Your task to perform on an android device: move a message to another label in the gmail app Image 0: 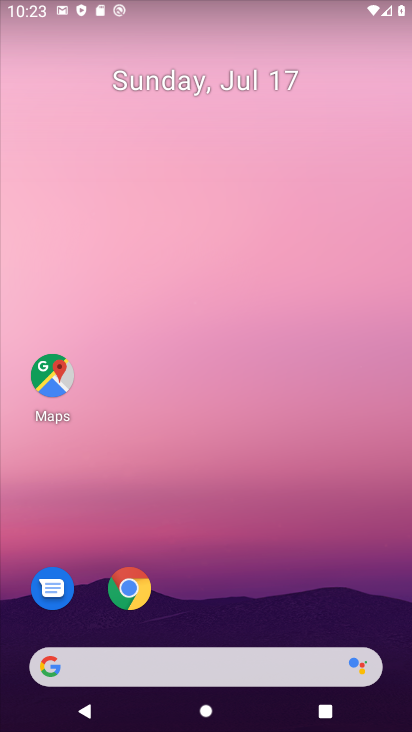
Step 0: drag from (254, 569) to (361, 1)
Your task to perform on an android device: move a message to another label in the gmail app Image 1: 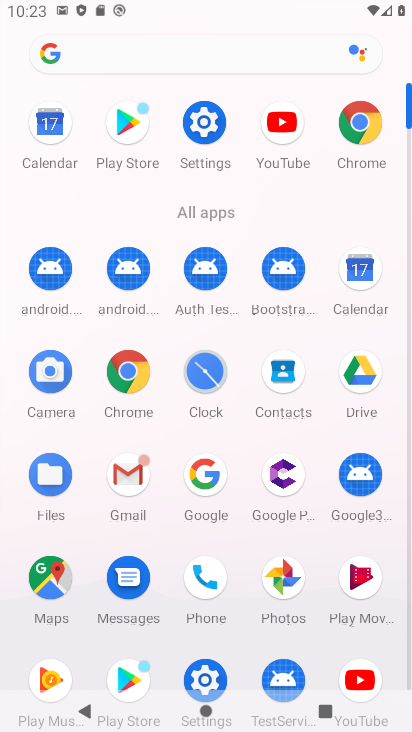
Step 1: click (124, 483)
Your task to perform on an android device: move a message to another label in the gmail app Image 2: 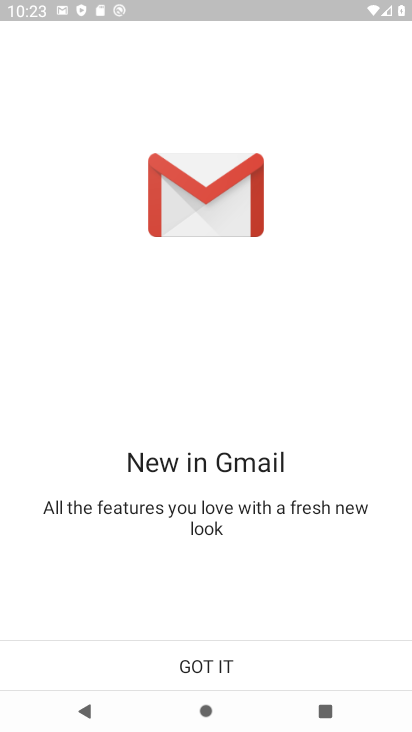
Step 2: click (172, 663)
Your task to perform on an android device: move a message to another label in the gmail app Image 3: 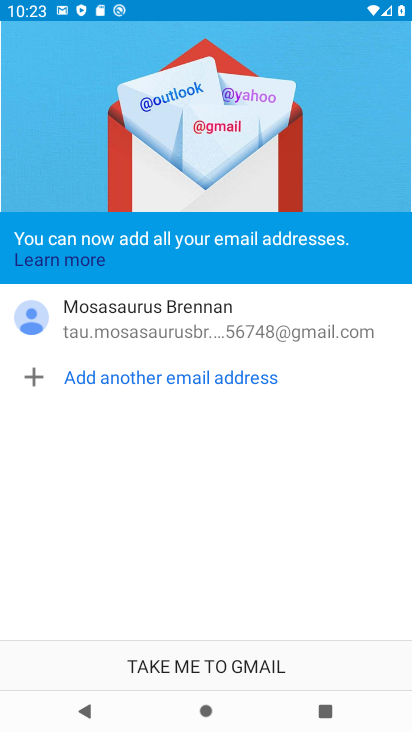
Step 3: click (186, 654)
Your task to perform on an android device: move a message to another label in the gmail app Image 4: 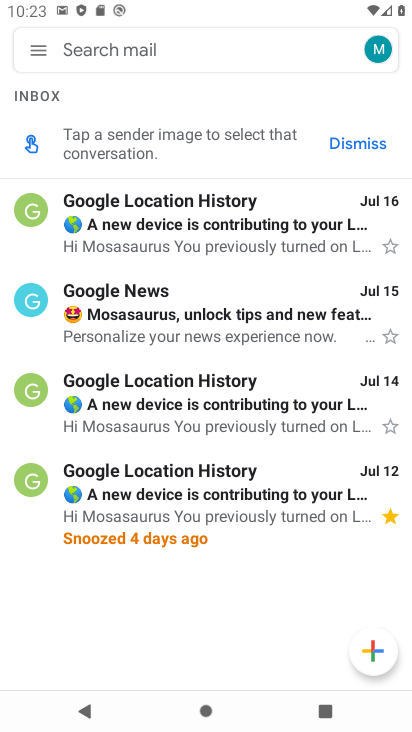
Step 4: click (181, 262)
Your task to perform on an android device: move a message to another label in the gmail app Image 5: 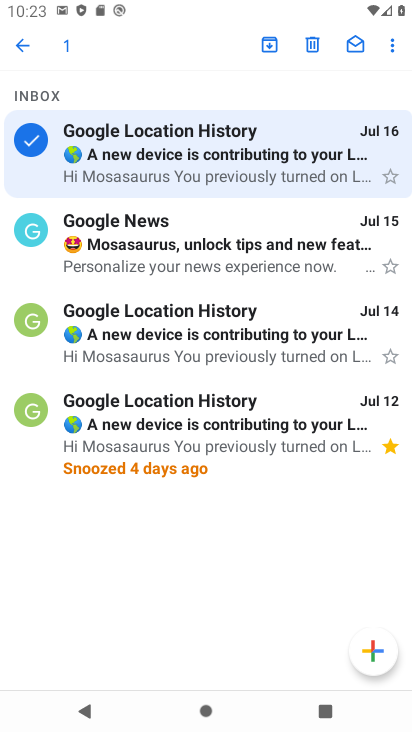
Step 5: click (402, 46)
Your task to perform on an android device: move a message to another label in the gmail app Image 6: 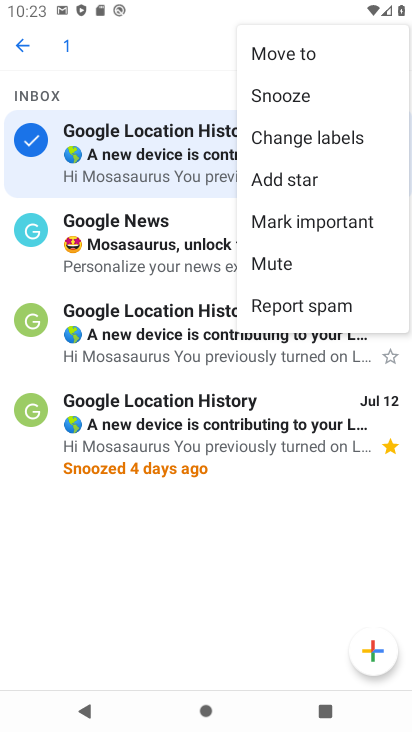
Step 6: task complete